Your task to perform on an android device: What's the news in Vietnam? Image 0: 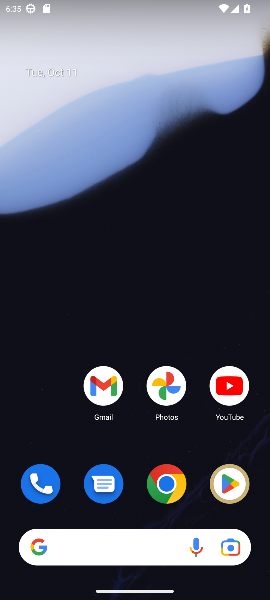
Step 0: click (166, 487)
Your task to perform on an android device: What's the news in Vietnam? Image 1: 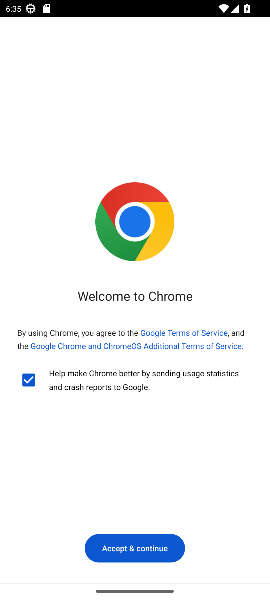
Step 1: click (122, 549)
Your task to perform on an android device: What's the news in Vietnam? Image 2: 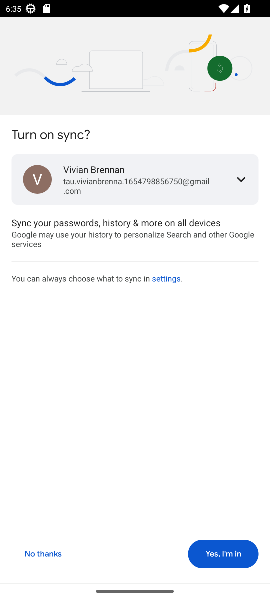
Step 2: click (218, 551)
Your task to perform on an android device: What's the news in Vietnam? Image 3: 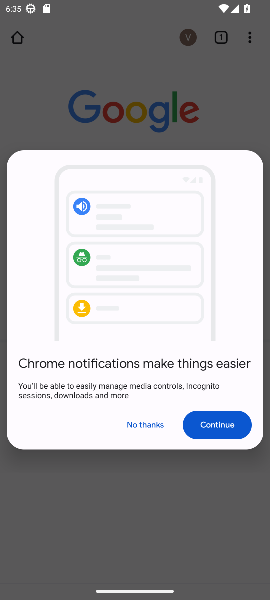
Step 3: click (155, 426)
Your task to perform on an android device: What's the news in Vietnam? Image 4: 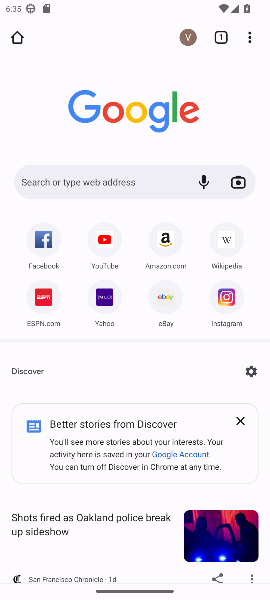
Step 4: click (135, 180)
Your task to perform on an android device: What's the news in Vietnam? Image 5: 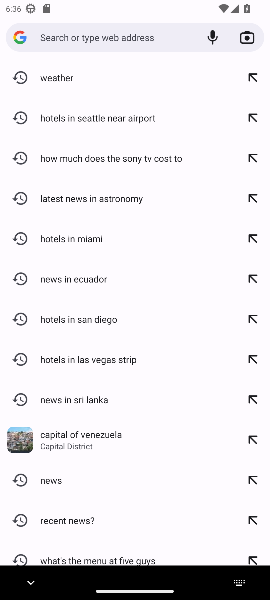
Step 5: type "What's the news in Vietnam?"
Your task to perform on an android device: What's the news in Vietnam? Image 6: 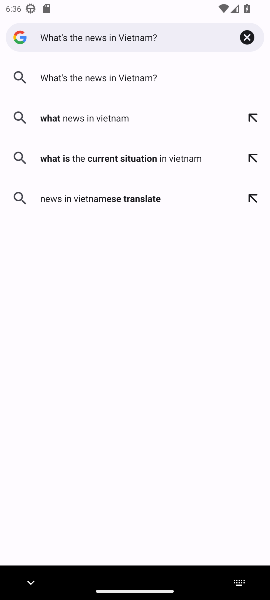
Step 6: click (141, 79)
Your task to perform on an android device: What's the news in Vietnam? Image 7: 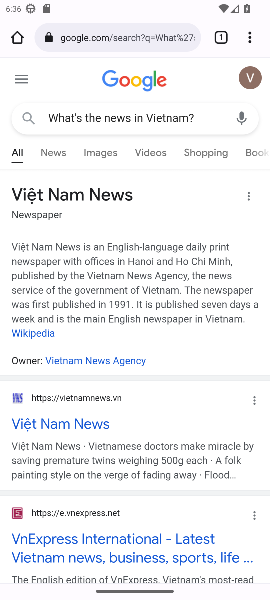
Step 7: task complete